Your task to perform on an android device: move a message to another label in the gmail app Image 0: 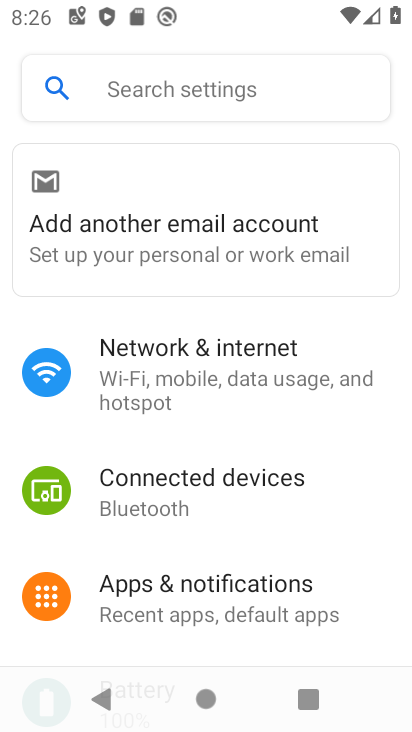
Step 0: press home button
Your task to perform on an android device: move a message to another label in the gmail app Image 1: 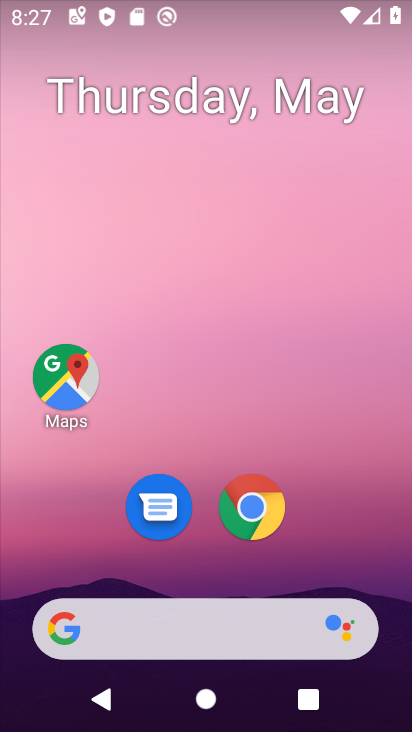
Step 1: drag from (272, 657) to (342, 191)
Your task to perform on an android device: move a message to another label in the gmail app Image 2: 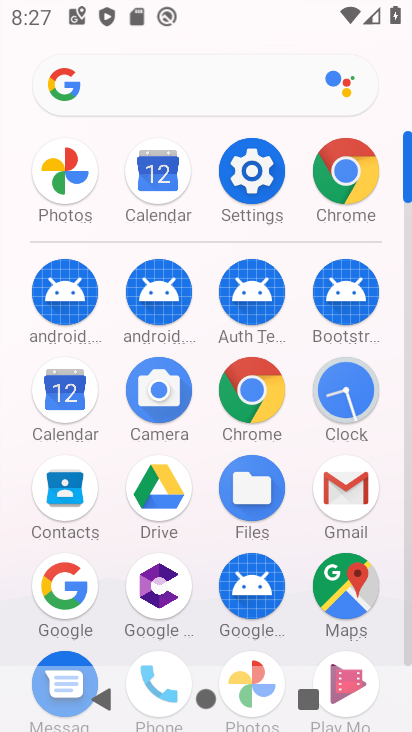
Step 2: click (324, 466)
Your task to perform on an android device: move a message to another label in the gmail app Image 3: 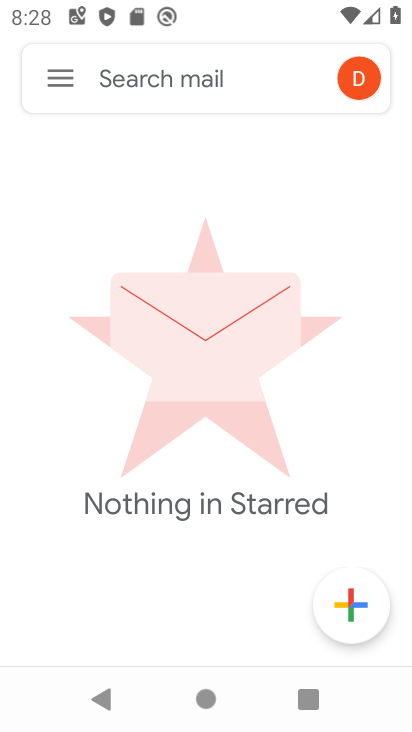
Step 3: click (48, 82)
Your task to perform on an android device: move a message to another label in the gmail app Image 4: 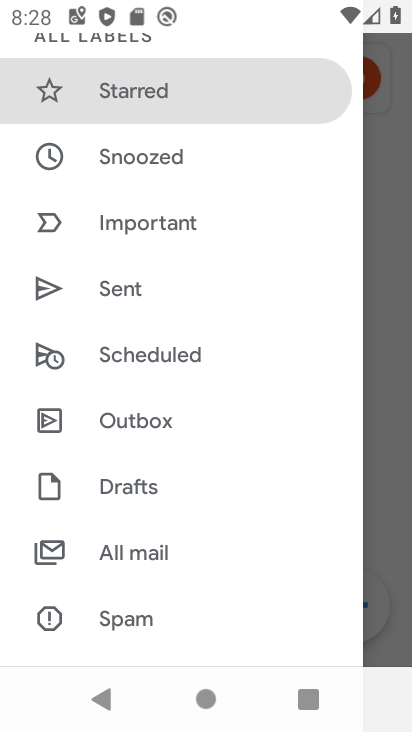
Step 4: drag from (169, 516) to (180, 61)
Your task to perform on an android device: move a message to another label in the gmail app Image 5: 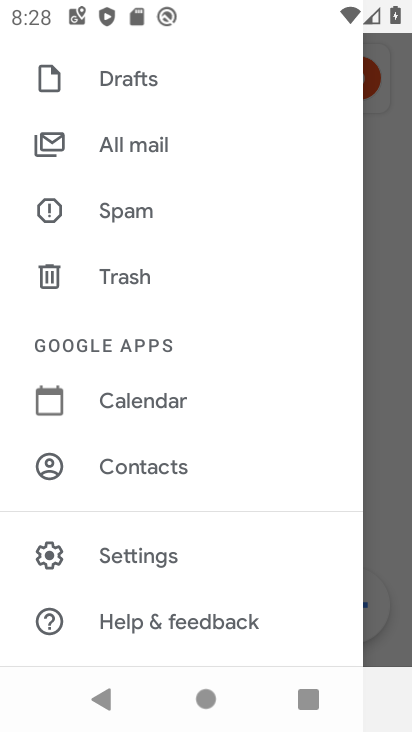
Step 5: click (112, 555)
Your task to perform on an android device: move a message to another label in the gmail app Image 6: 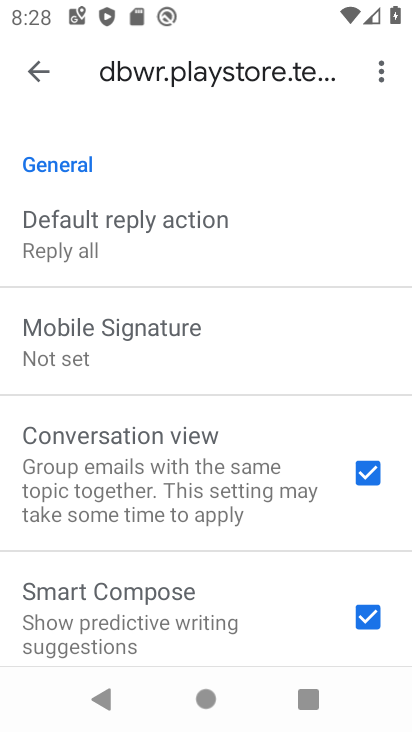
Step 6: drag from (142, 279) to (168, 568)
Your task to perform on an android device: move a message to another label in the gmail app Image 7: 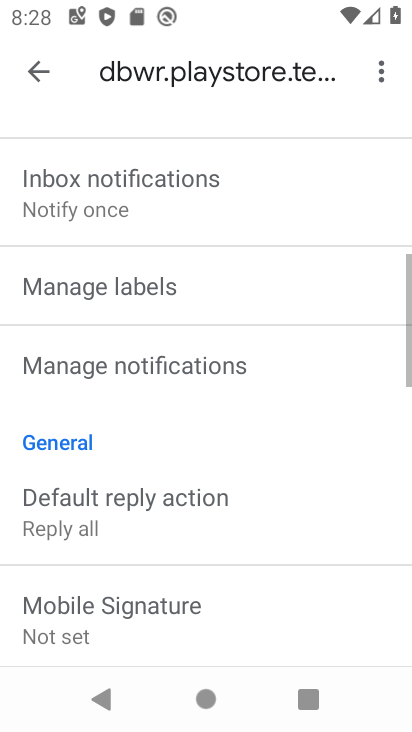
Step 7: click (137, 297)
Your task to perform on an android device: move a message to another label in the gmail app Image 8: 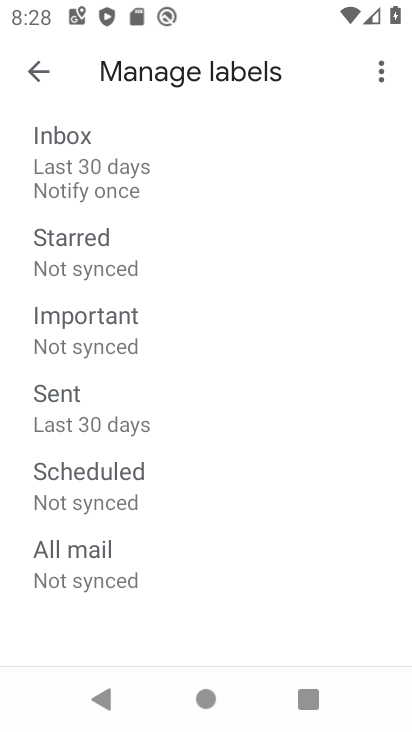
Step 8: click (100, 351)
Your task to perform on an android device: move a message to another label in the gmail app Image 9: 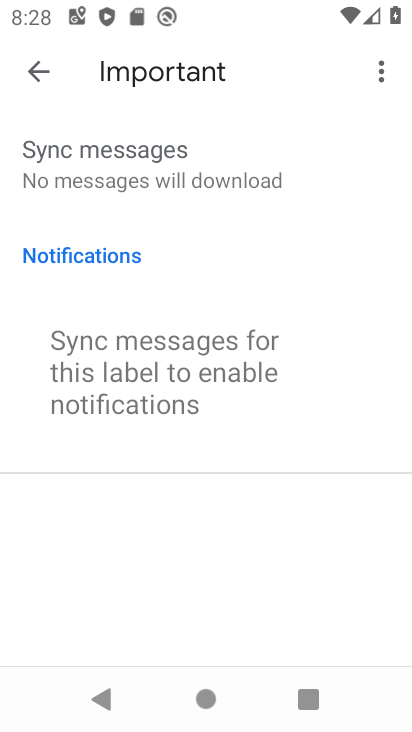
Step 9: task complete